Your task to perform on an android device: Open CNN.com Image 0: 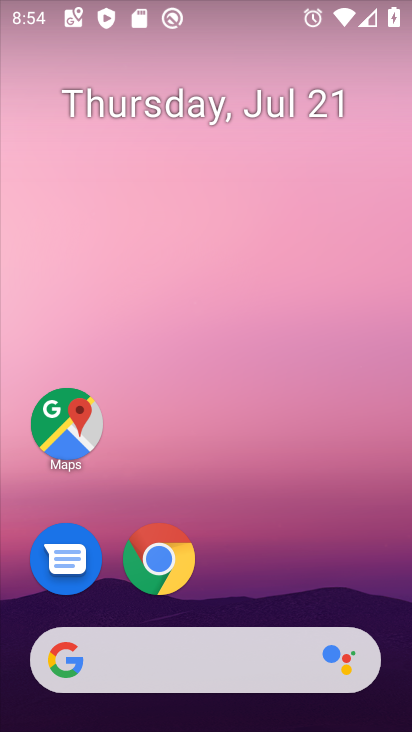
Step 0: drag from (378, 577) to (351, 151)
Your task to perform on an android device: Open CNN.com Image 1: 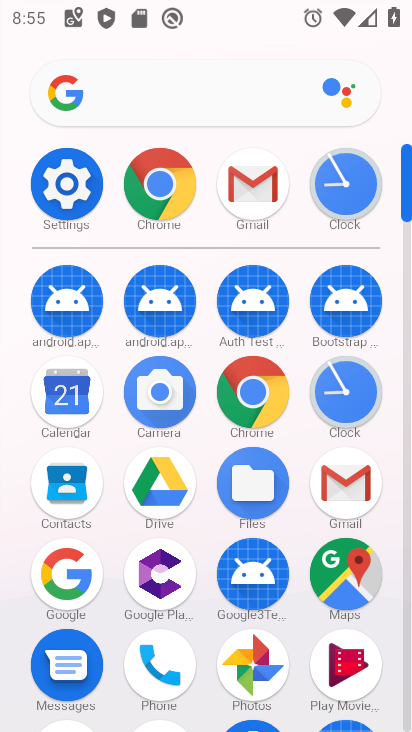
Step 1: click (260, 387)
Your task to perform on an android device: Open CNN.com Image 2: 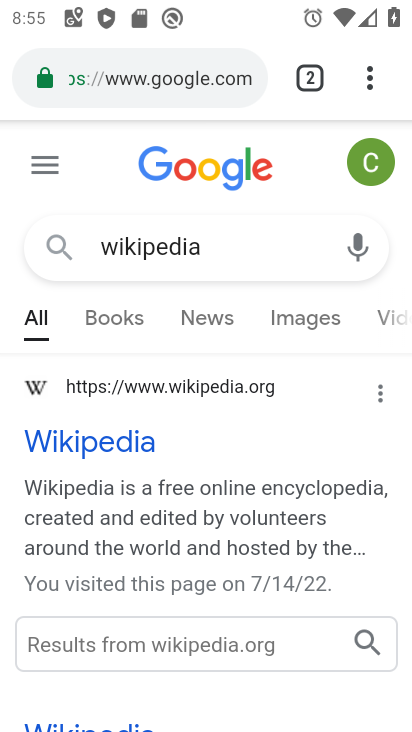
Step 2: click (185, 86)
Your task to perform on an android device: Open CNN.com Image 3: 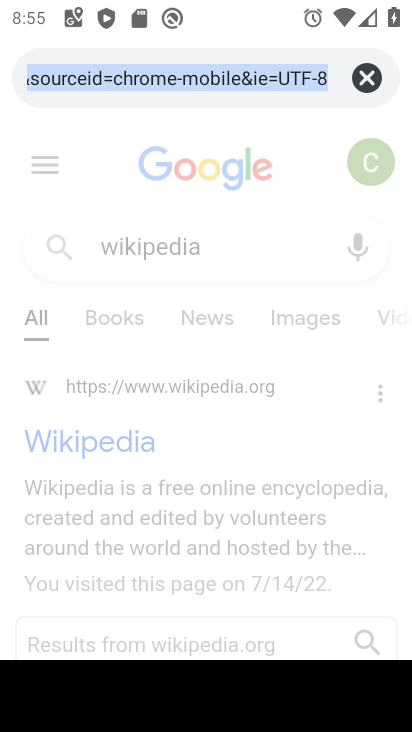
Step 3: type "cnn.com"
Your task to perform on an android device: Open CNN.com Image 4: 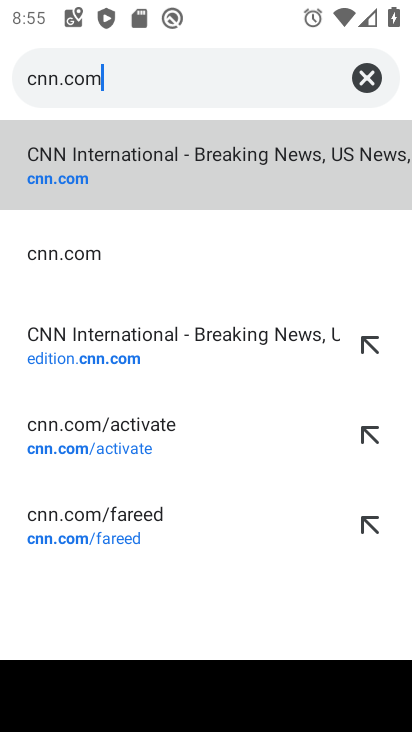
Step 4: click (312, 174)
Your task to perform on an android device: Open CNN.com Image 5: 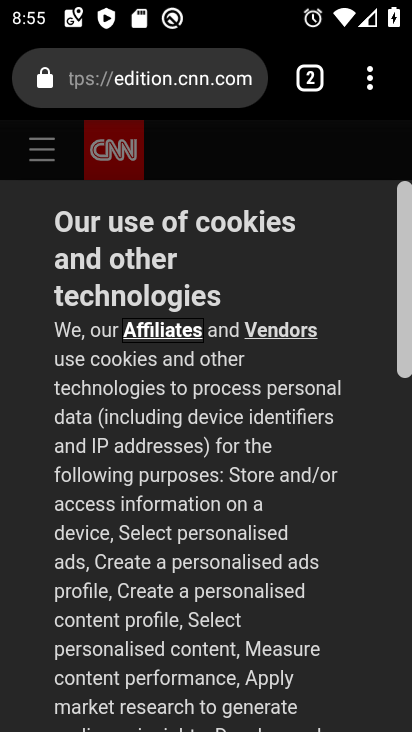
Step 5: task complete